Your task to perform on an android device: install app "Google Play Music" Image 0: 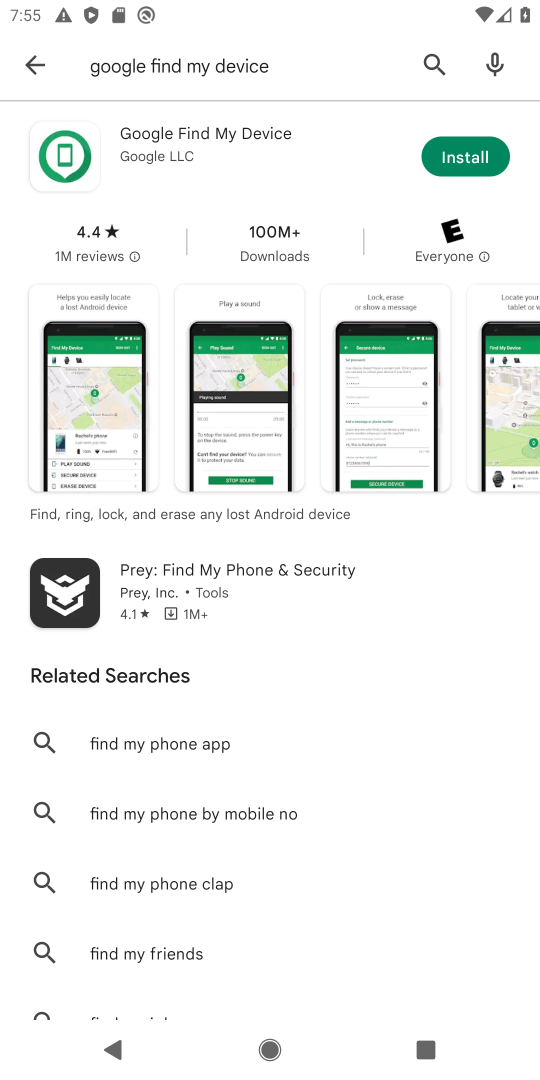
Step 0: click (434, 68)
Your task to perform on an android device: install app "Google Play Music" Image 1: 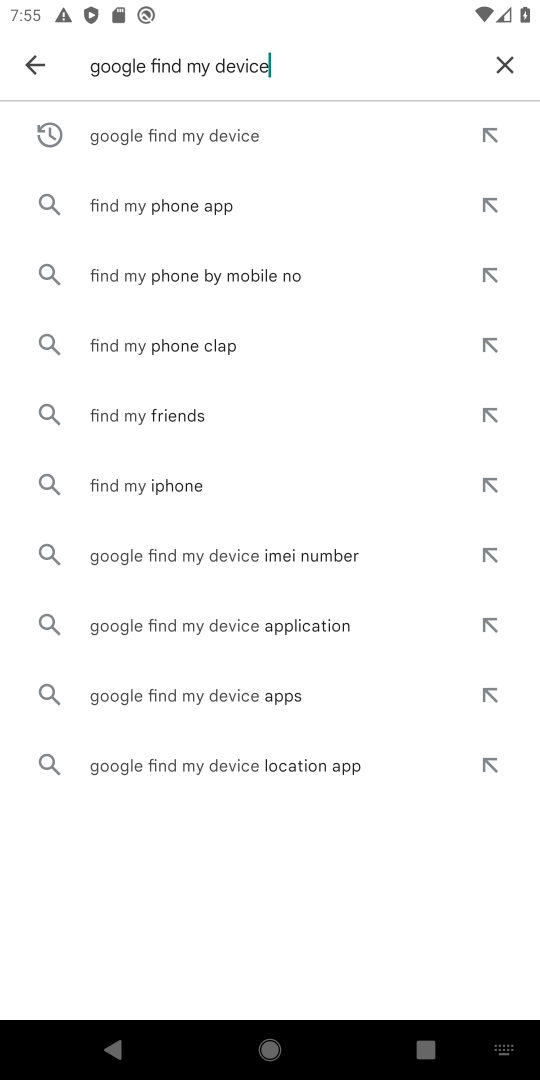
Step 1: click (498, 57)
Your task to perform on an android device: install app "Google Play Music" Image 2: 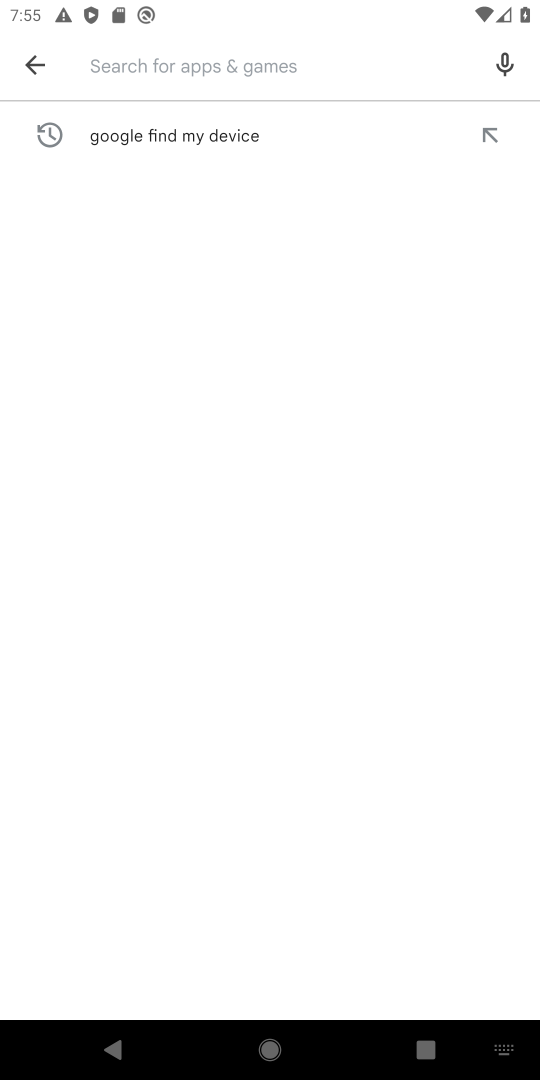
Step 2: type "Google Play Music"
Your task to perform on an android device: install app "Google Play Music" Image 3: 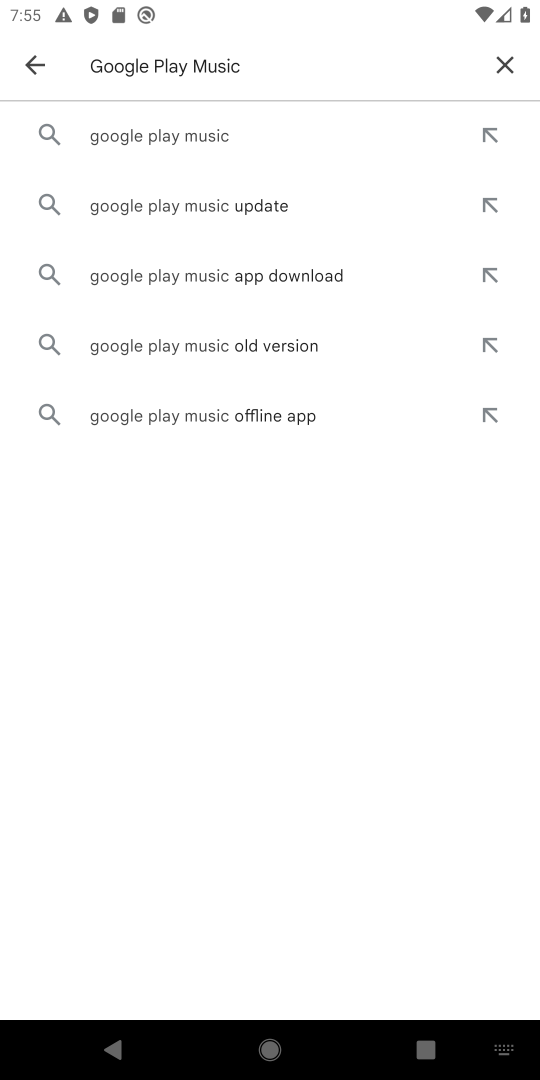
Step 3: click (205, 144)
Your task to perform on an android device: install app "Google Play Music" Image 4: 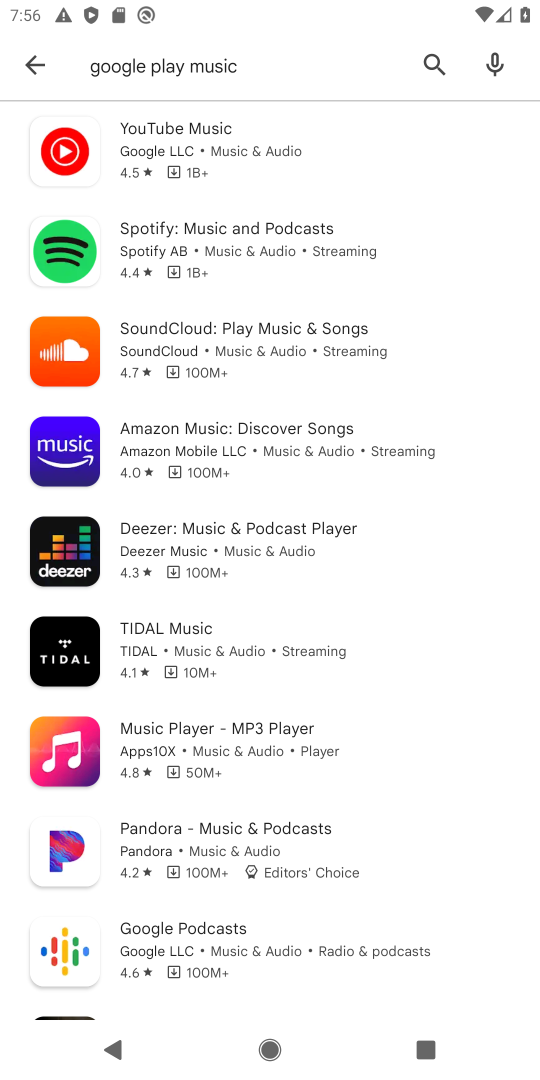
Step 4: task complete